Your task to perform on an android device: Open Yahoo.com Image 0: 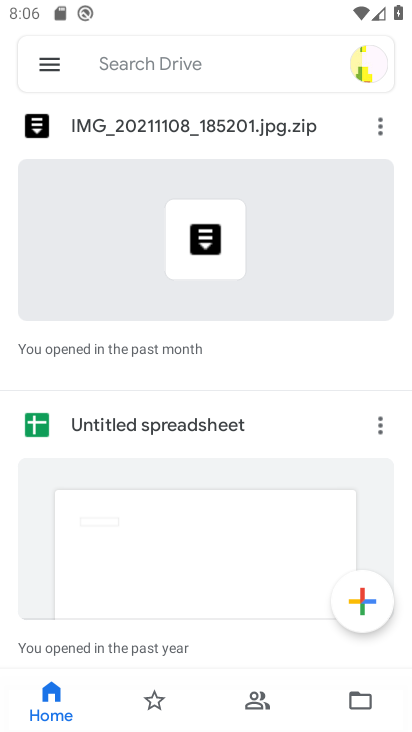
Step 0: press home button
Your task to perform on an android device: Open Yahoo.com Image 1: 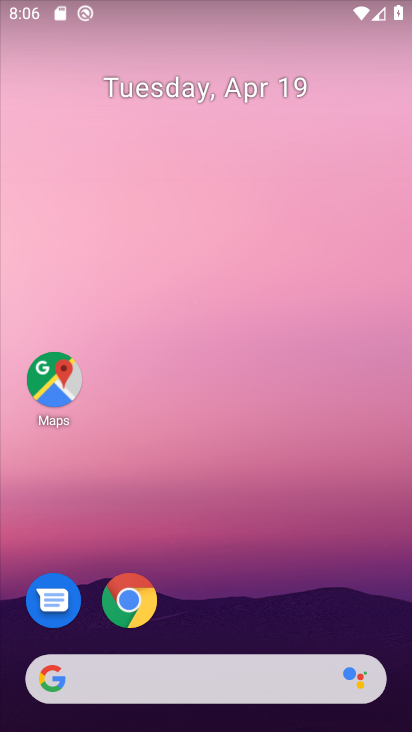
Step 1: drag from (358, 593) to (352, 124)
Your task to perform on an android device: Open Yahoo.com Image 2: 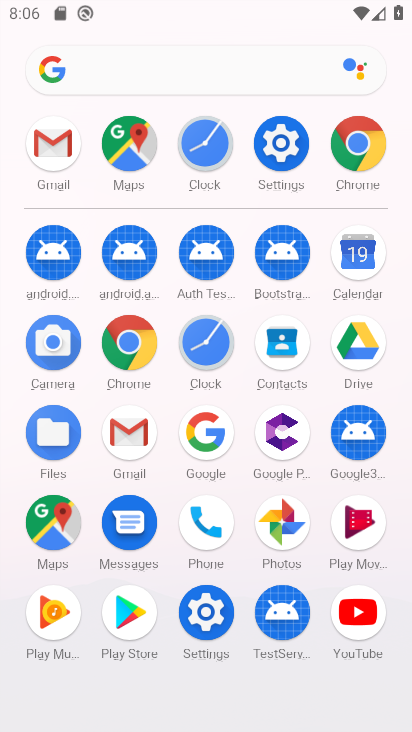
Step 2: click (361, 151)
Your task to perform on an android device: Open Yahoo.com Image 3: 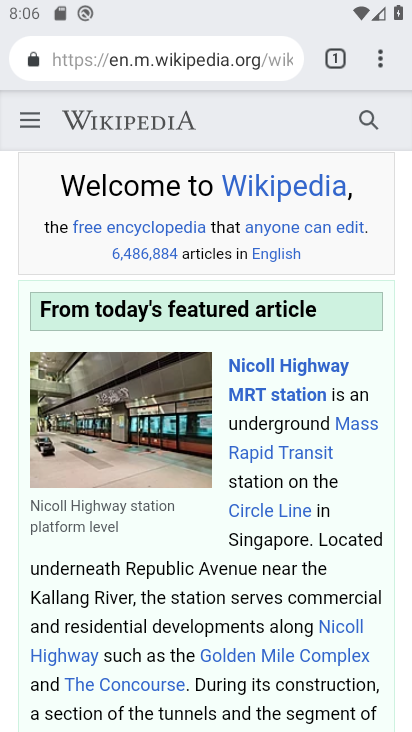
Step 3: press back button
Your task to perform on an android device: Open Yahoo.com Image 4: 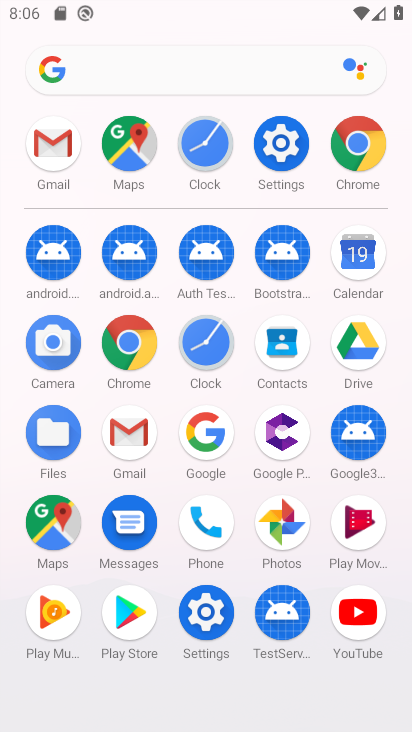
Step 4: click (379, 151)
Your task to perform on an android device: Open Yahoo.com Image 5: 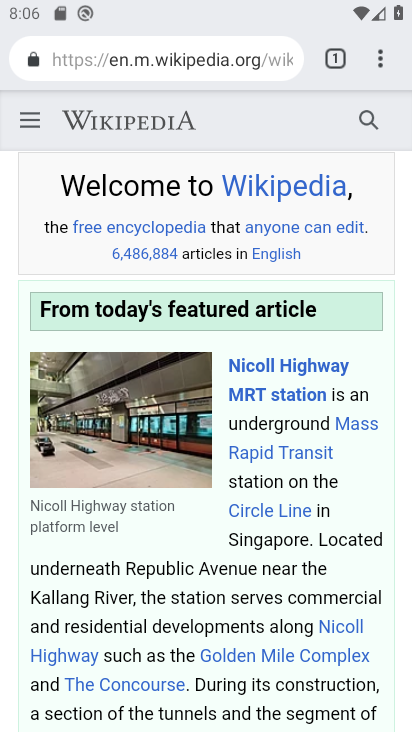
Step 5: press back button
Your task to perform on an android device: Open Yahoo.com Image 6: 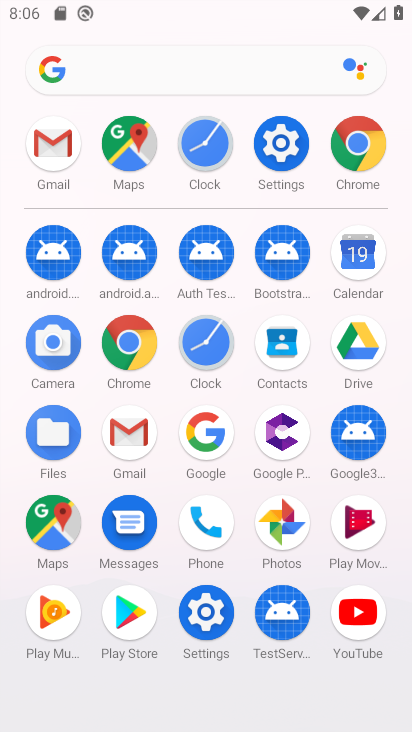
Step 6: click (350, 145)
Your task to perform on an android device: Open Yahoo.com Image 7: 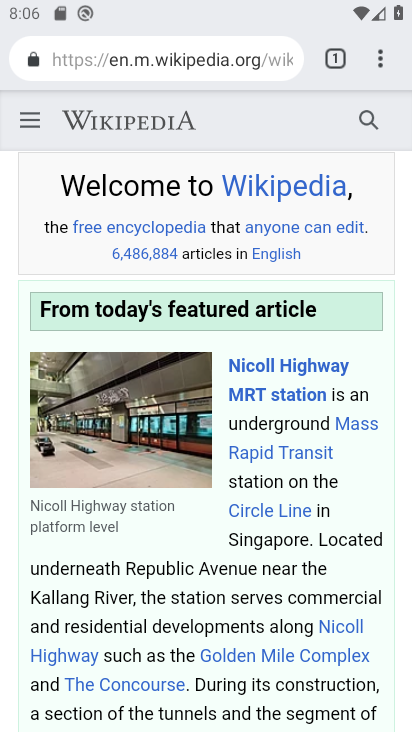
Step 7: click (244, 56)
Your task to perform on an android device: Open Yahoo.com Image 8: 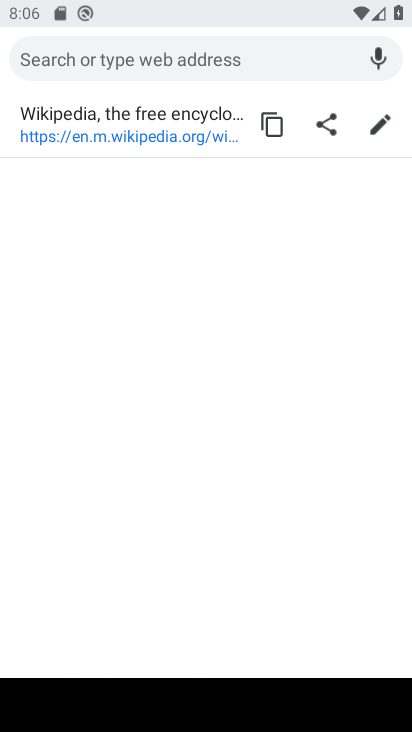
Step 8: type "yahoo.com"
Your task to perform on an android device: Open Yahoo.com Image 9: 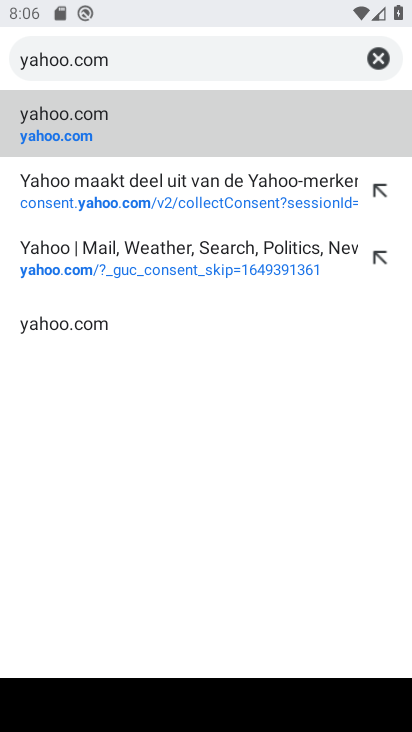
Step 9: click (73, 325)
Your task to perform on an android device: Open Yahoo.com Image 10: 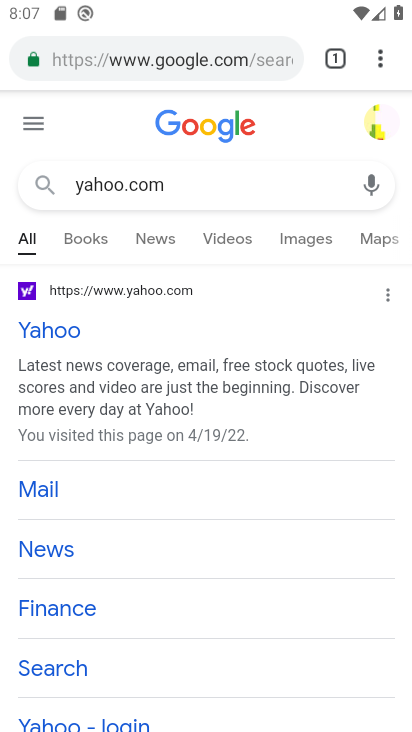
Step 10: click (68, 334)
Your task to perform on an android device: Open Yahoo.com Image 11: 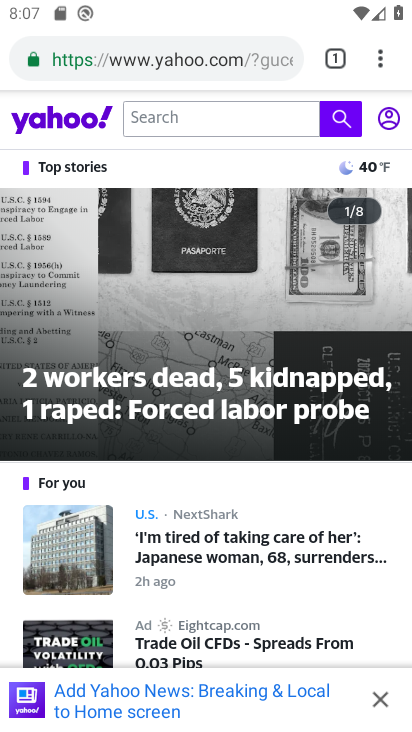
Step 11: task complete